Your task to perform on an android device: Go to Android settings Image 0: 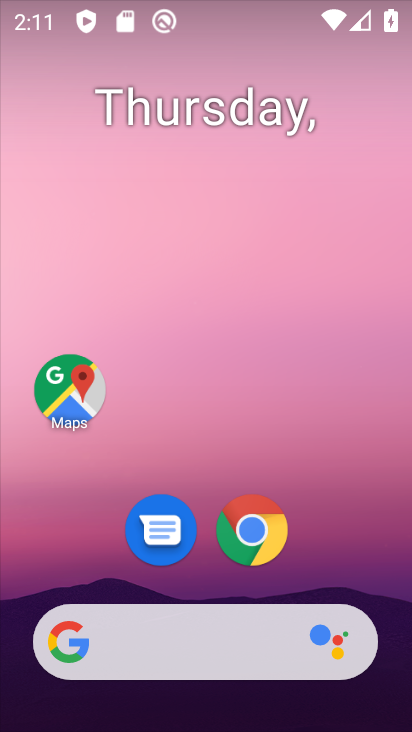
Step 0: drag from (257, 714) to (221, 15)
Your task to perform on an android device: Go to Android settings Image 1: 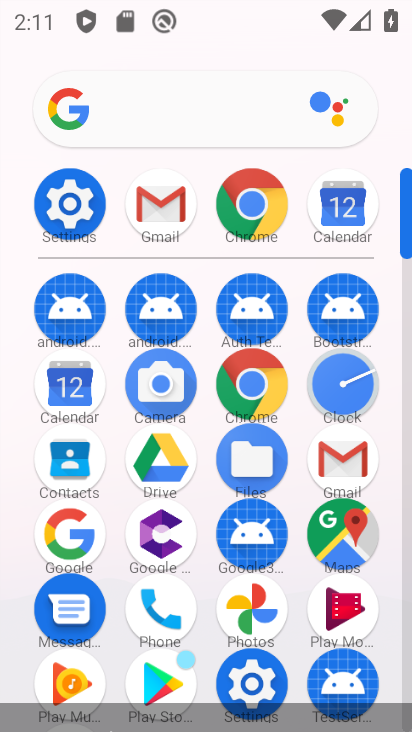
Step 1: click (71, 195)
Your task to perform on an android device: Go to Android settings Image 2: 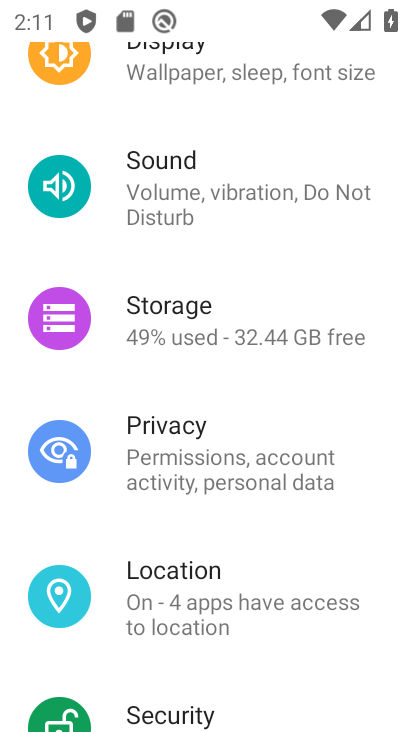
Step 2: task complete